Your task to perform on an android device: Go to CNN.com Image 0: 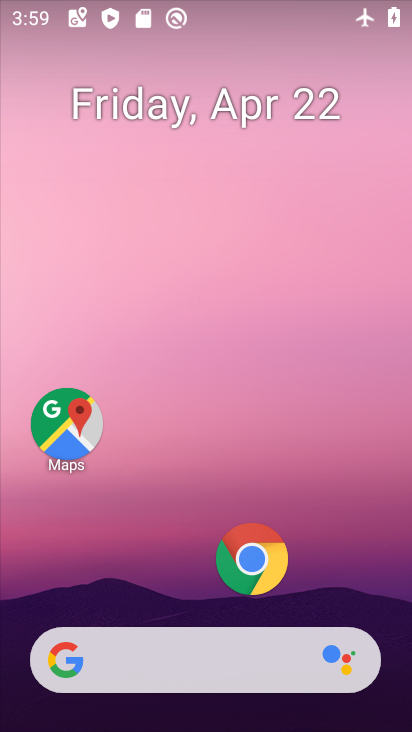
Step 0: click (268, 557)
Your task to perform on an android device: Go to CNN.com Image 1: 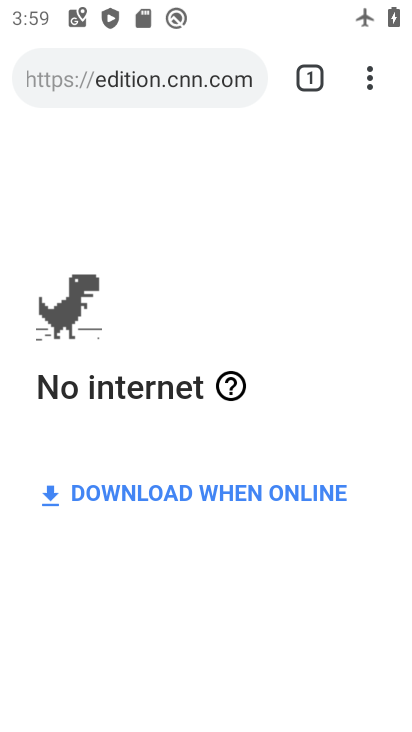
Step 1: click (200, 85)
Your task to perform on an android device: Go to CNN.com Image 2: 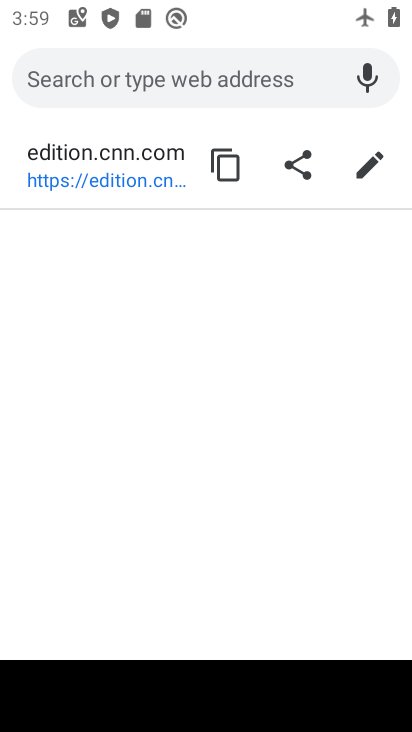
Step 2: type "CNN"
Your task to perform on an android device: Go to CNN.com Image 3: 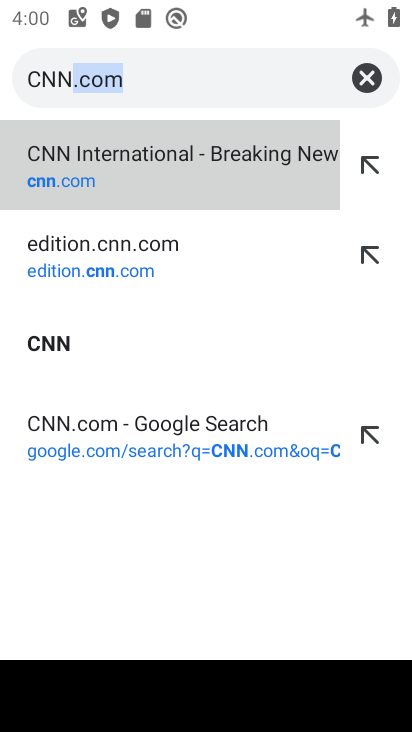
Step 3: click (156, 168)
Your task to perform on an android device: Go to CNN.com Image 4: 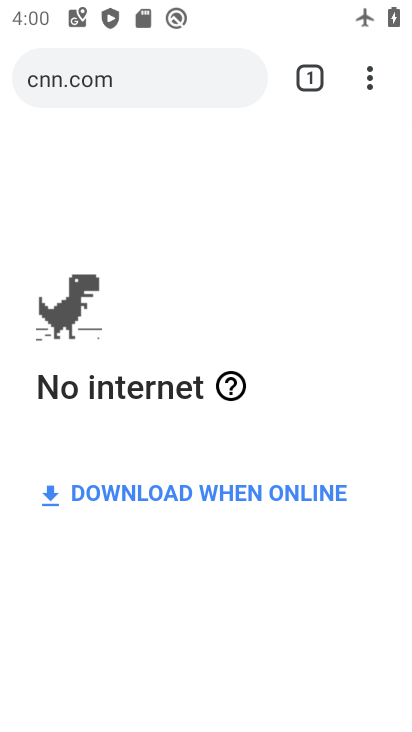
Step 4: task complete